Your task to perform on an android device: change timer sound Image 0: 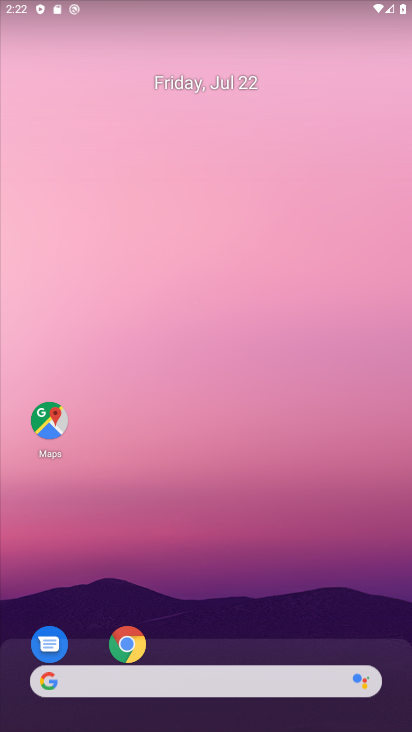
Step 0: drag from (295, 649) to (258, 154)
Your task to perform on an android device: change timer sound Image 1: 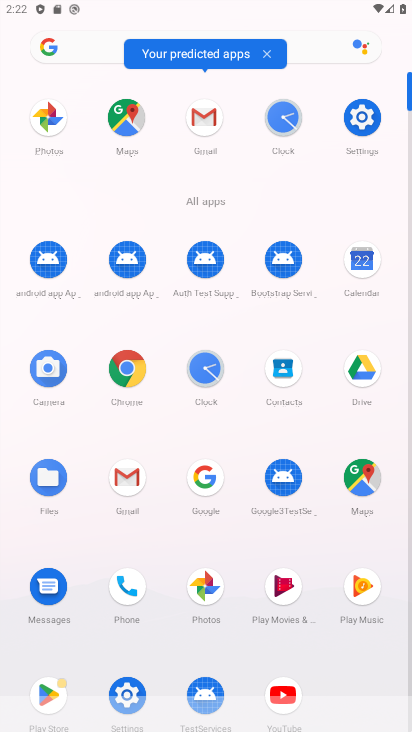
Step 1: click (275, 124)
Your task to perform on an android device: change timer sound Image 2: 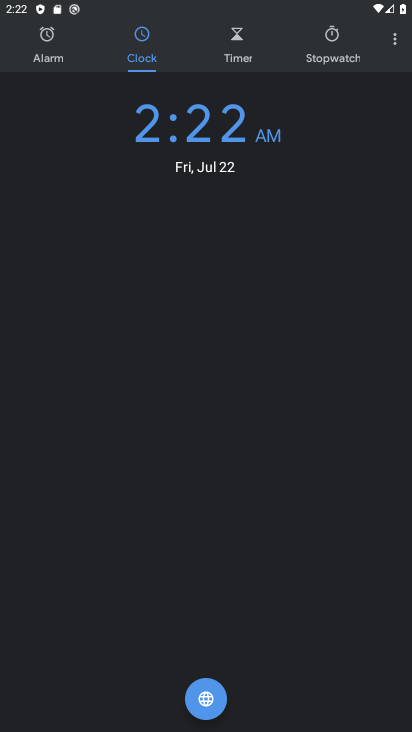
Step 2: click (395, 44)
Your task to perform on an android device: change timer sound Image 3: 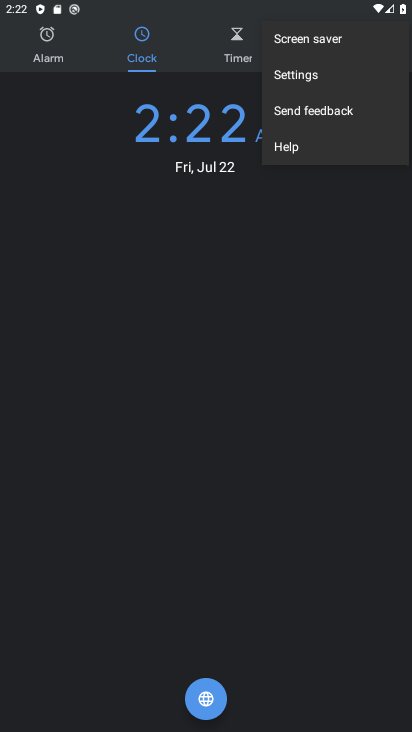
Step 3: click (297, 81)
Your task to perform on an android device: change timer sound Image 4: 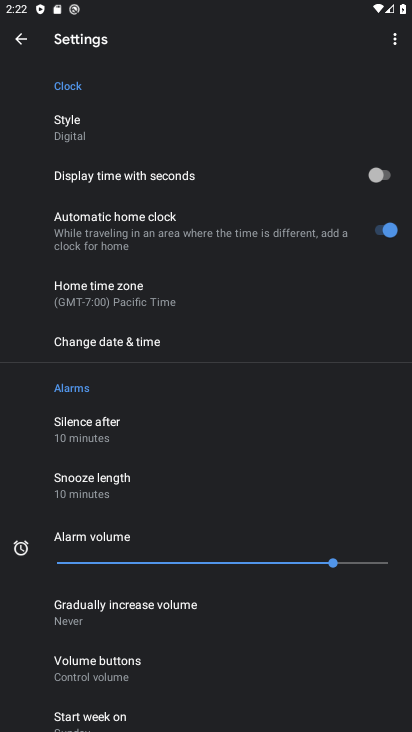
Step 4: drag from (278, 628) to (273, 226)
Your task to perform on an android device: change timer sound Image 5: 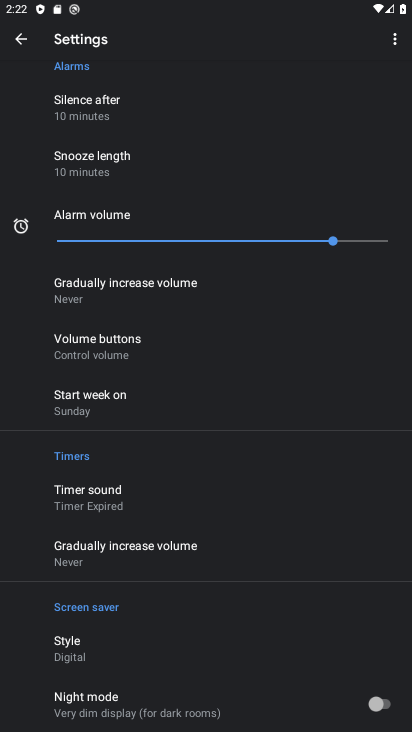
Step 5: click (89, 501)
Your task to perform on an android device: change timer sound Image 6: 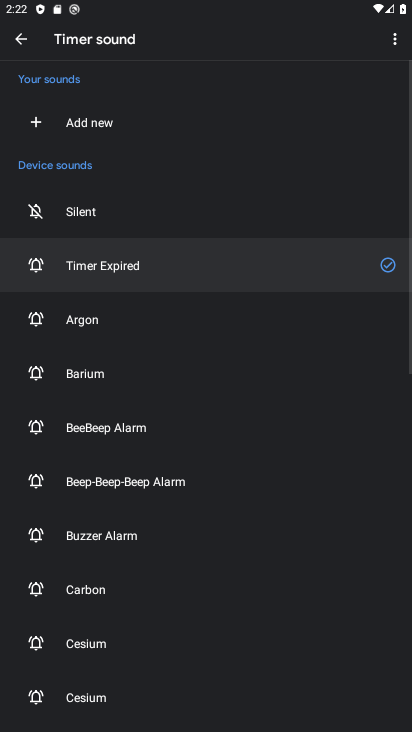
Step 6: click (96, 378)
Your task to perform on an android device: change timer sound Image 7: 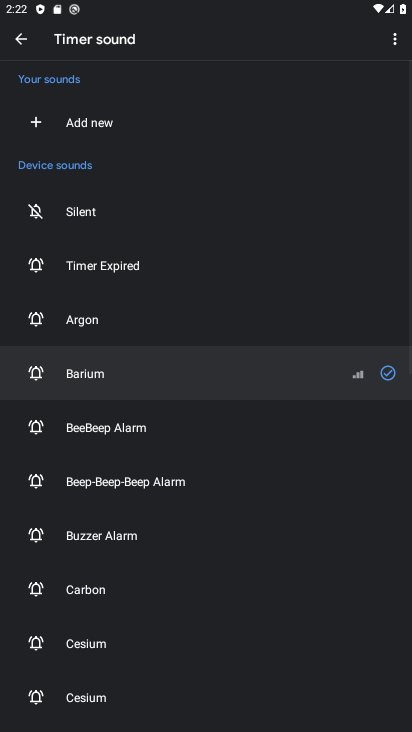
Step 7: task complete